Your task to perform on an android device: Is it going to rain tomorrow? Image 0: 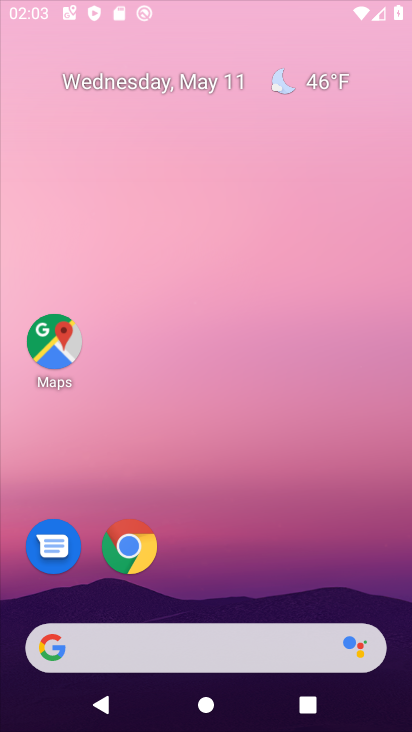
Step 0: click (259, 108)
Your task to perform on an android device: Is it going to rain tomorrow? Image 1: 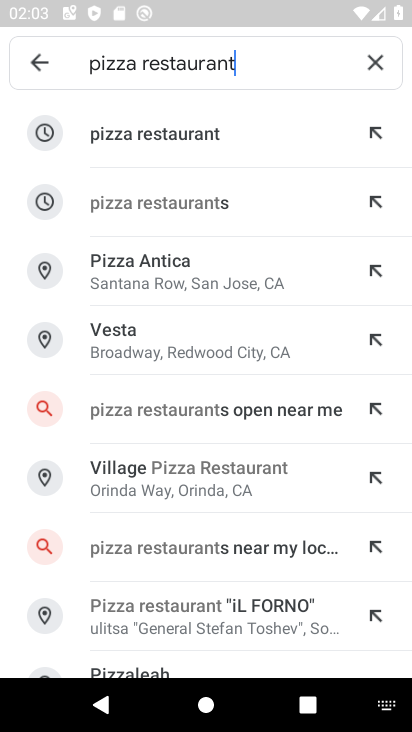
Step 1: press home button
Your task to perform on an android device: Is it going to rain tomorrow? Image 2: 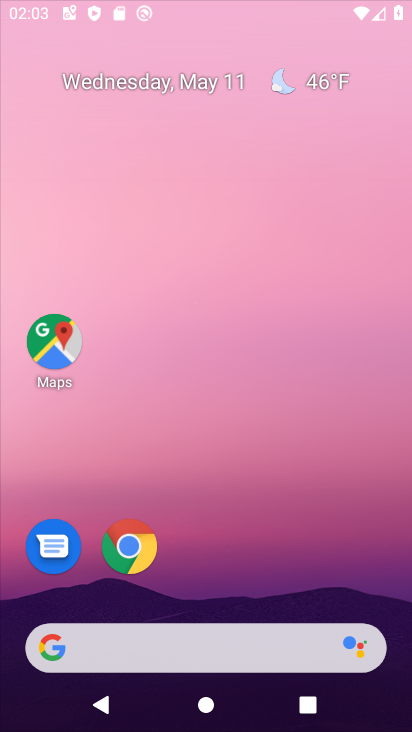
Step 2: drag from (234, 512) to (343, 23)
Your task to perform on an android device: Is it going to rain tomorrow? Image 3: 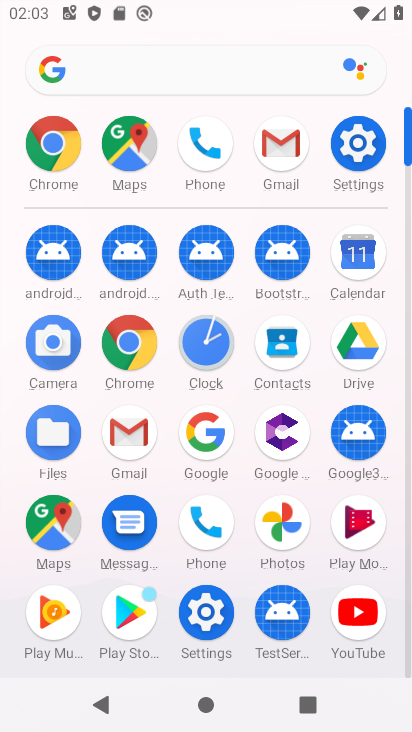
Step 3: click (175, 75)
Your task to perform on an android device: Is it going to rain tomorrow? Image 4: 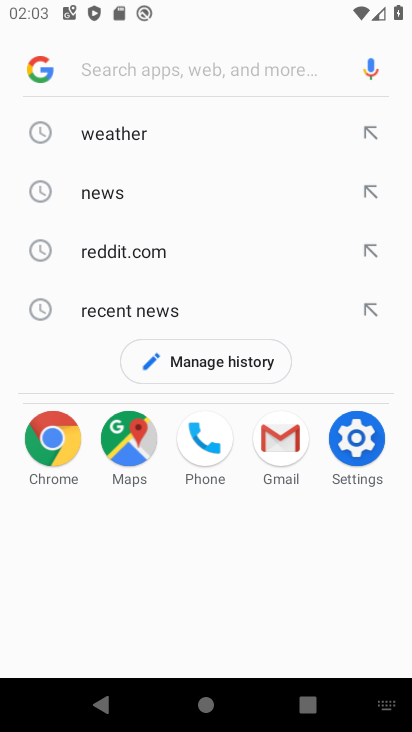
Step 4: type "rain tomorrow"
Your task to perform on an android device: Is it going to rain tomorrow? Image 5: 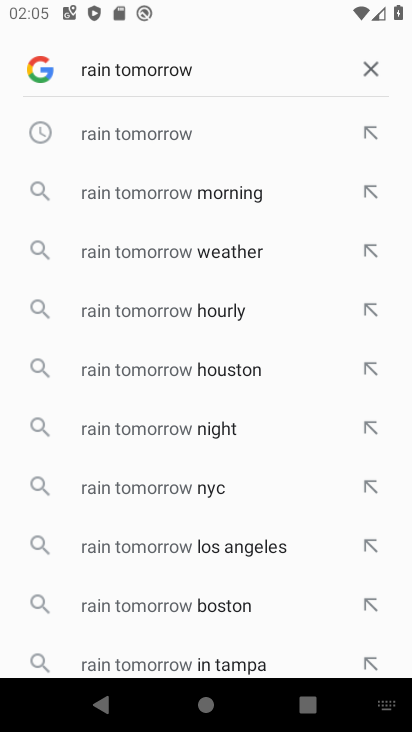
Step 5: click (178, 133)
Your task to perform on an android device: Is it going to rain tomorrow? Image 6: 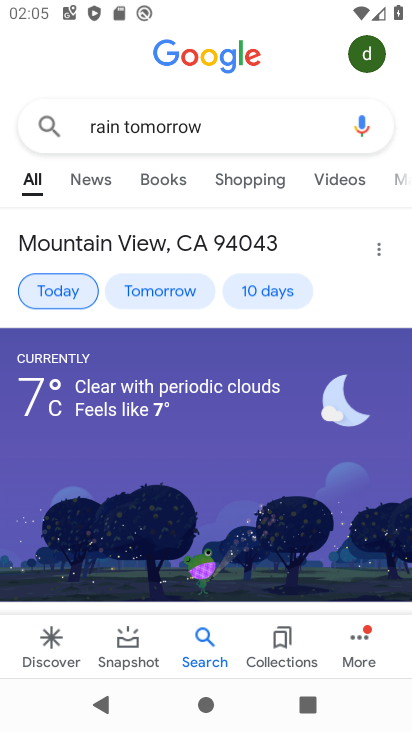
Step 6: task complete